Your task to perform on an android device: What's the weather going to be tomorrow? Image 0: 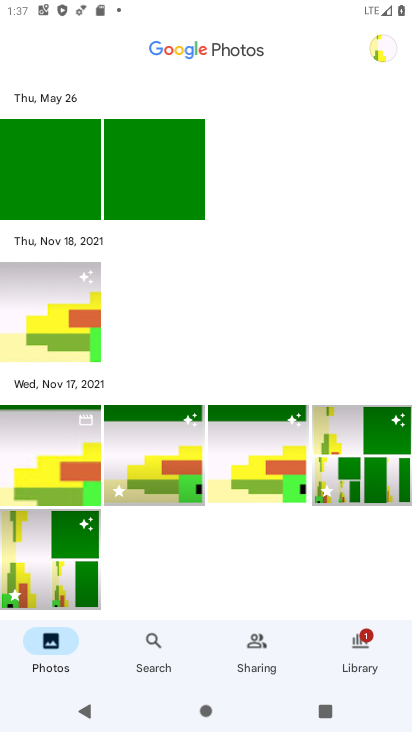
Step 0: press home button
Your task to perform on an android device: What's the weather going to be tomorrow? Image 1: 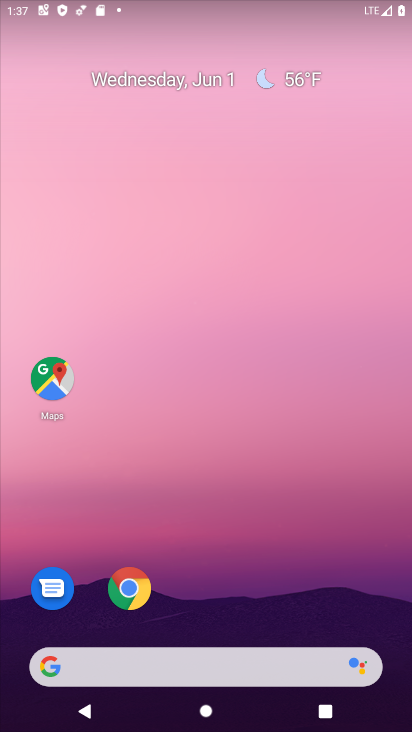
Step 1: click (299, 79)
Your task to perform on an android device: What's the weather going to be tomorrow? Image 2: 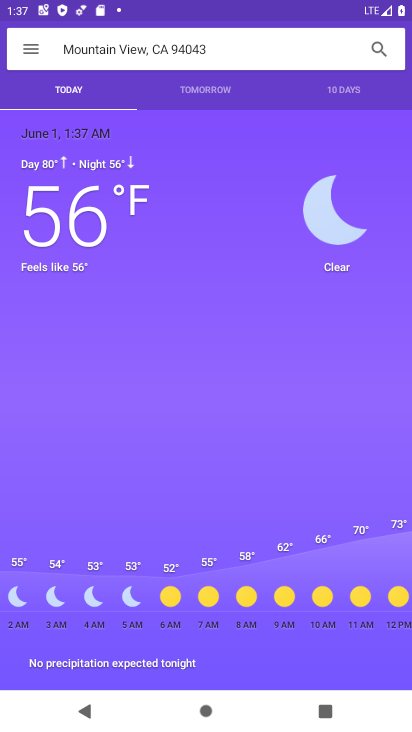
Step 2: task complete